Your task to perform on an android device: open app "Google Duo" Image 0: 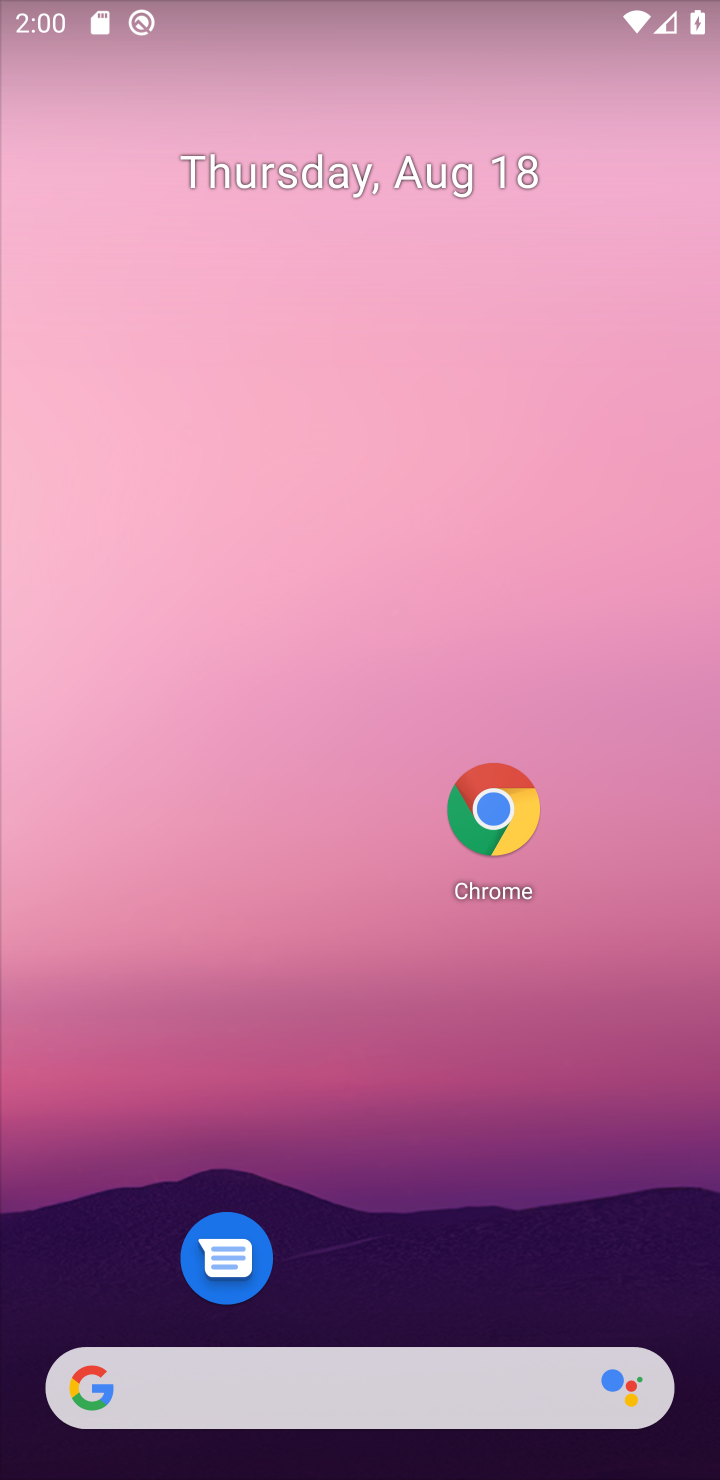
Step 0: drag from (338, 445) to (367, 291)
Your task to perform on an android device: open app "Google Duo" Image 1: 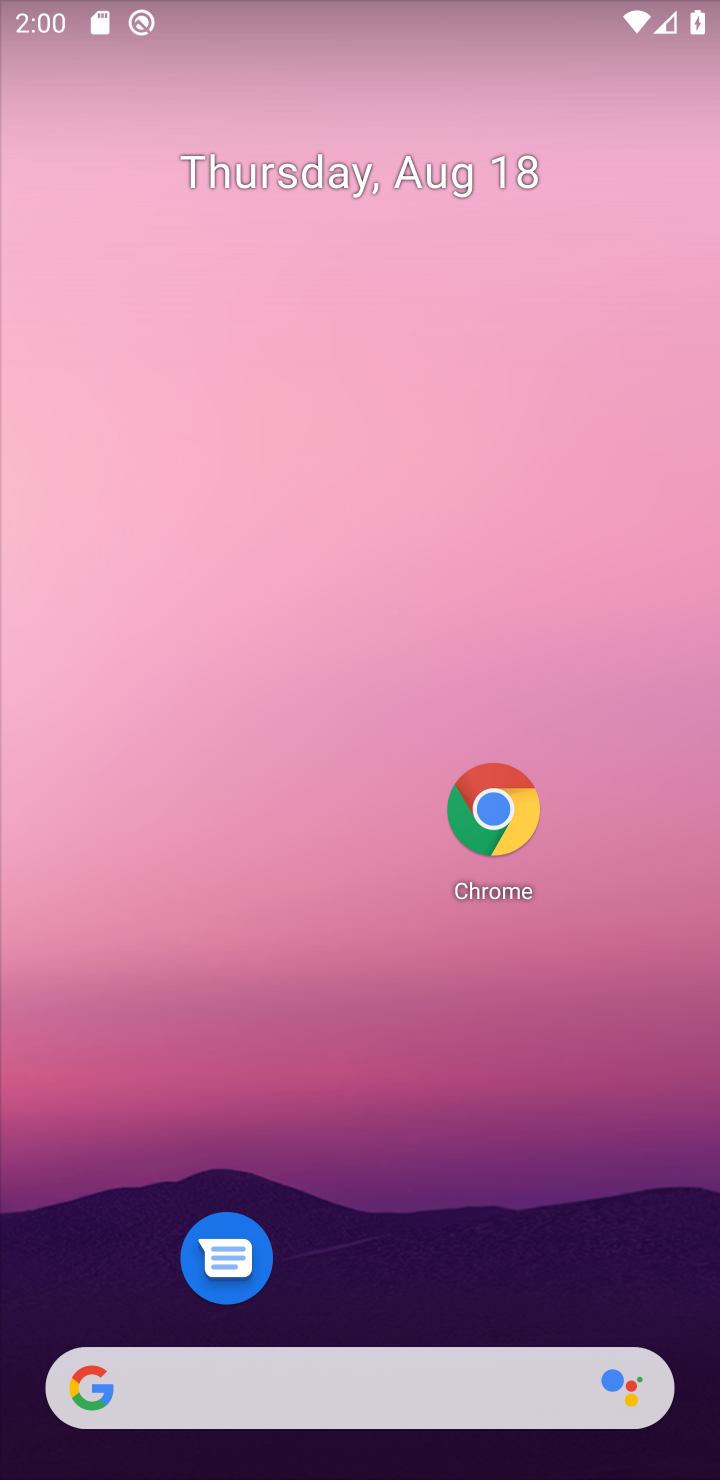
Step 1: drag from (349, 483) to (349, 140)
Your task to perform on an android device: open app "Google Duo" Image 2: 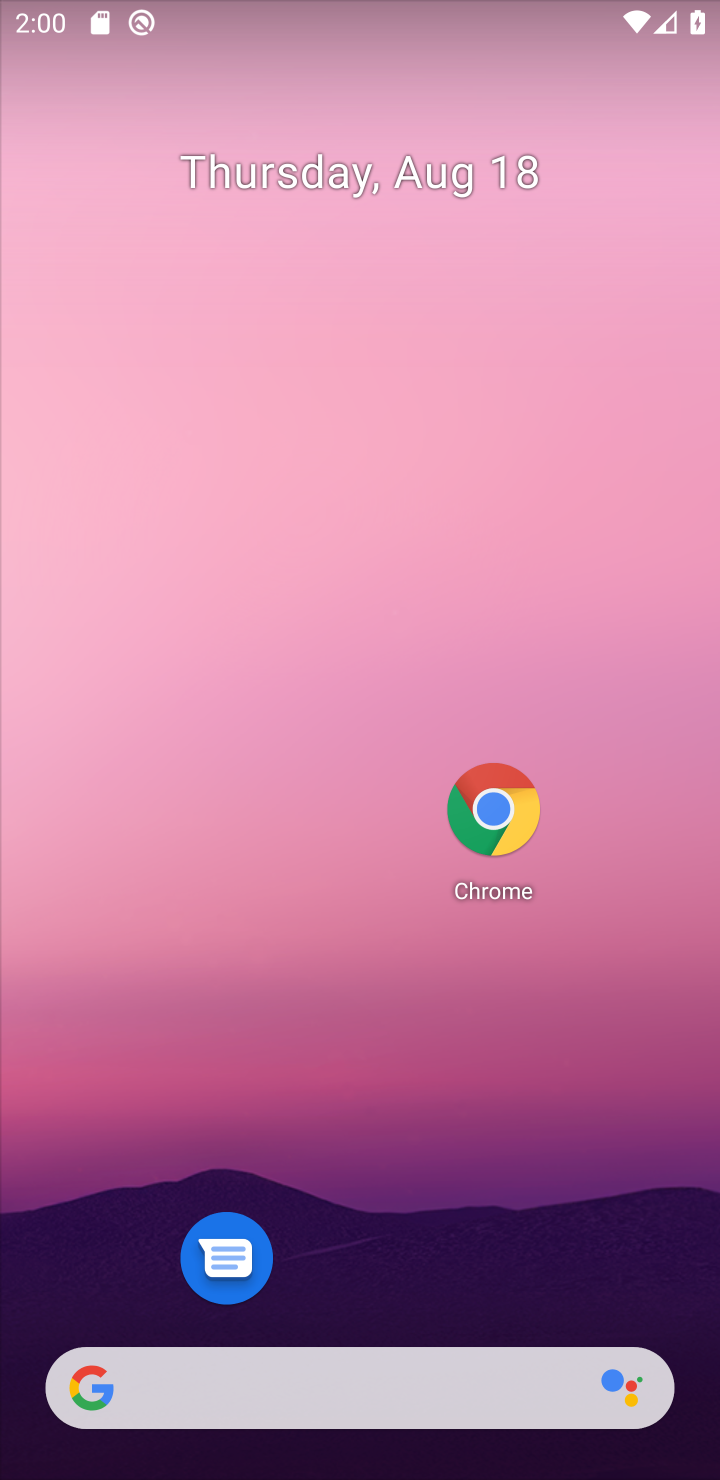
Step 2: drag from (396, 911) to (399, 157)
Your task to perform on an android device: open app "Google Duo" Image 3: 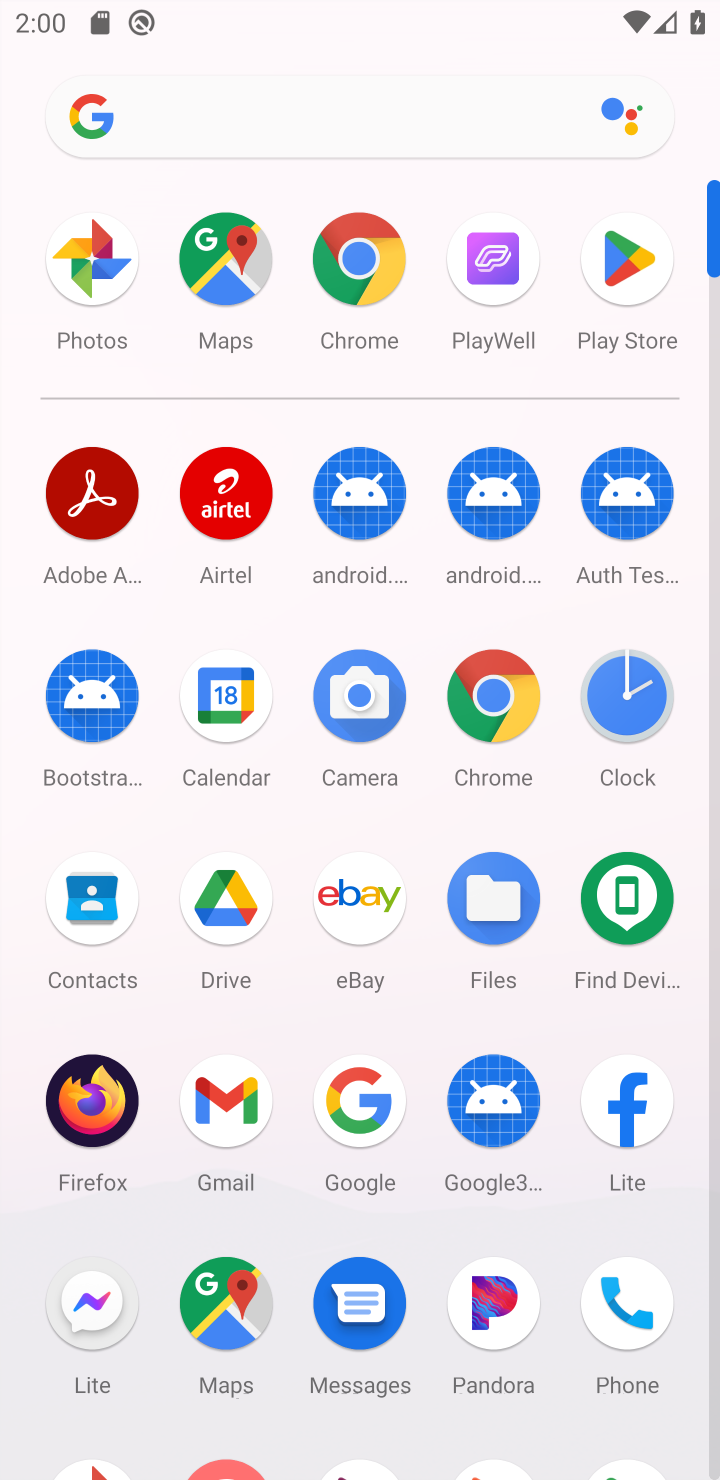
Step 3: click (631, 278)
Your task to perform on an android device: open app "Google Duo" Image 4: 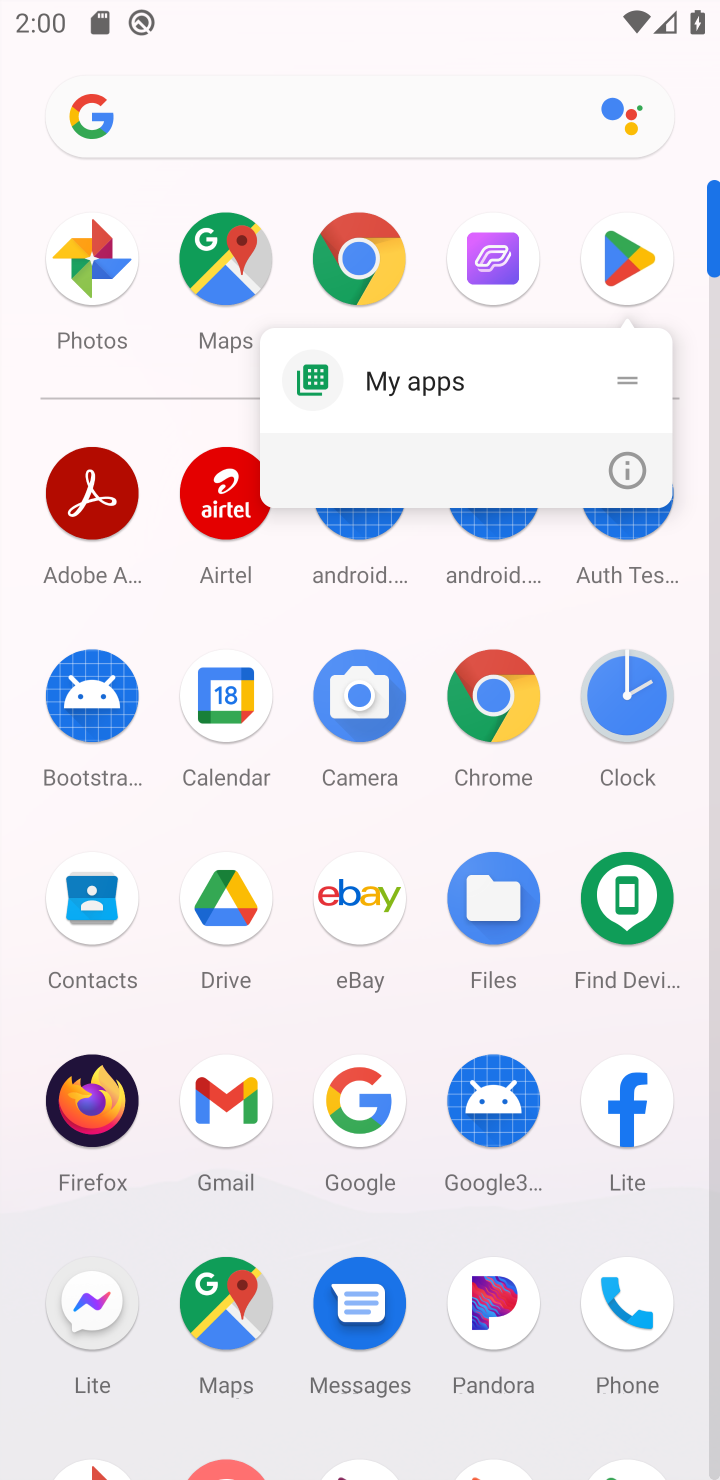
Step 4: click (612, 230)
Your task to perform on an android device: open app "Google Duo" Image 5: 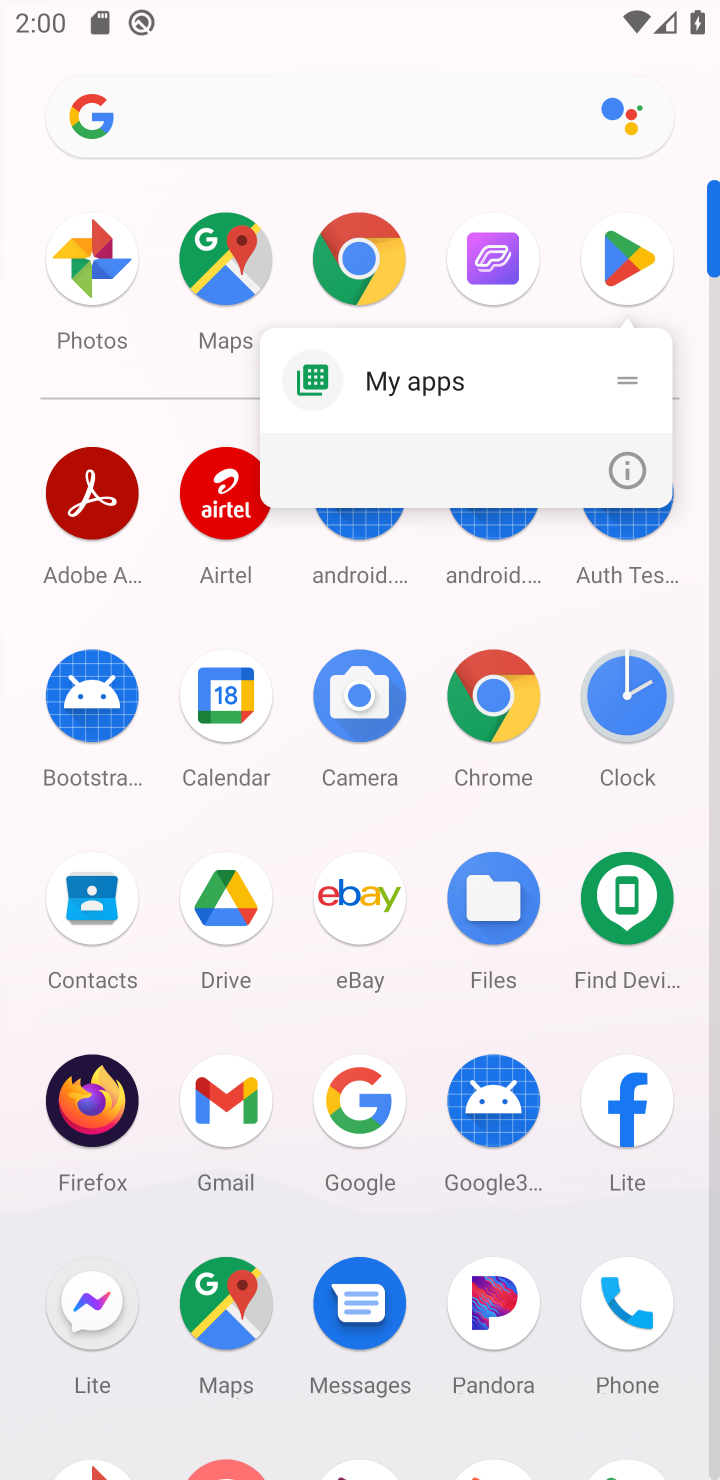
Step 5: click (612, 230)
Your task to perform on an android device: open app "Google Duo" Image 6: 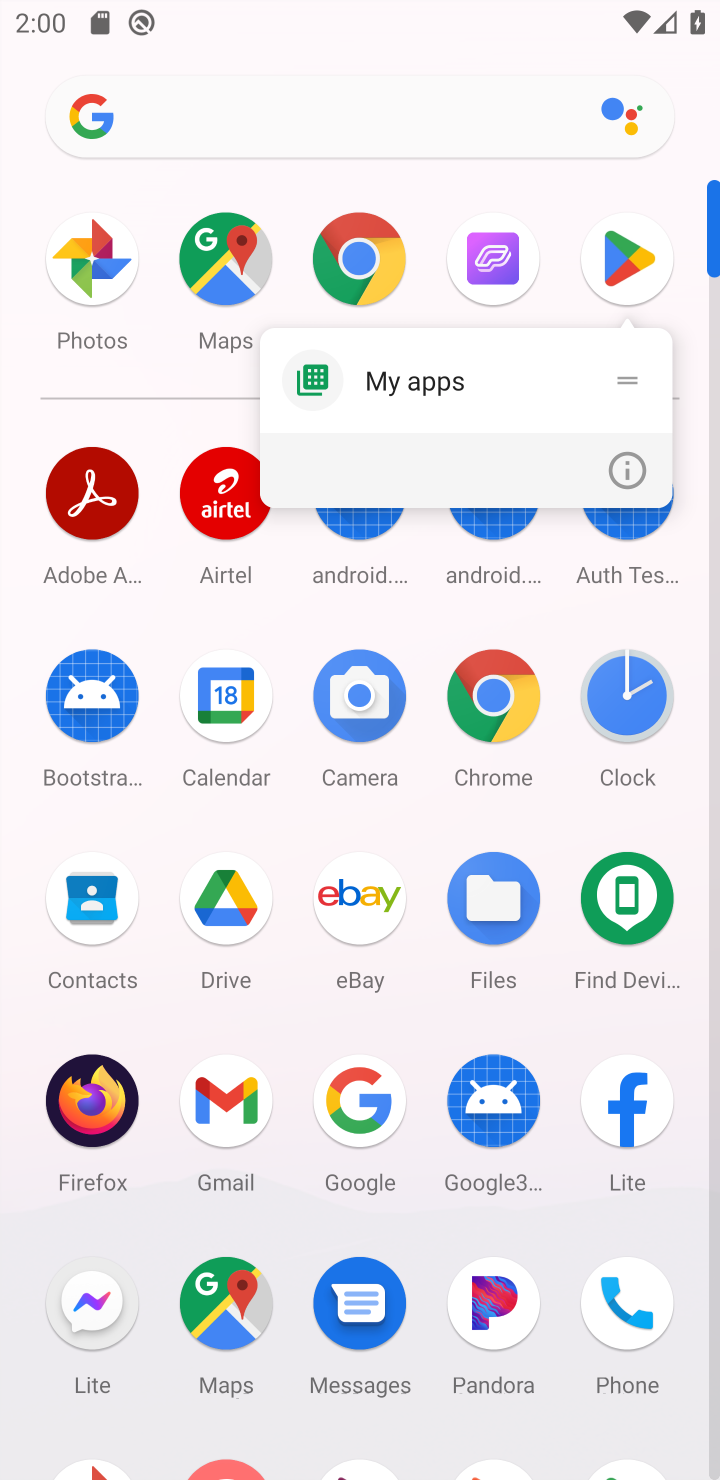
Step 6: click (659, 249)
Your task to perform on an android device: open app "Google Duo" Image 7: 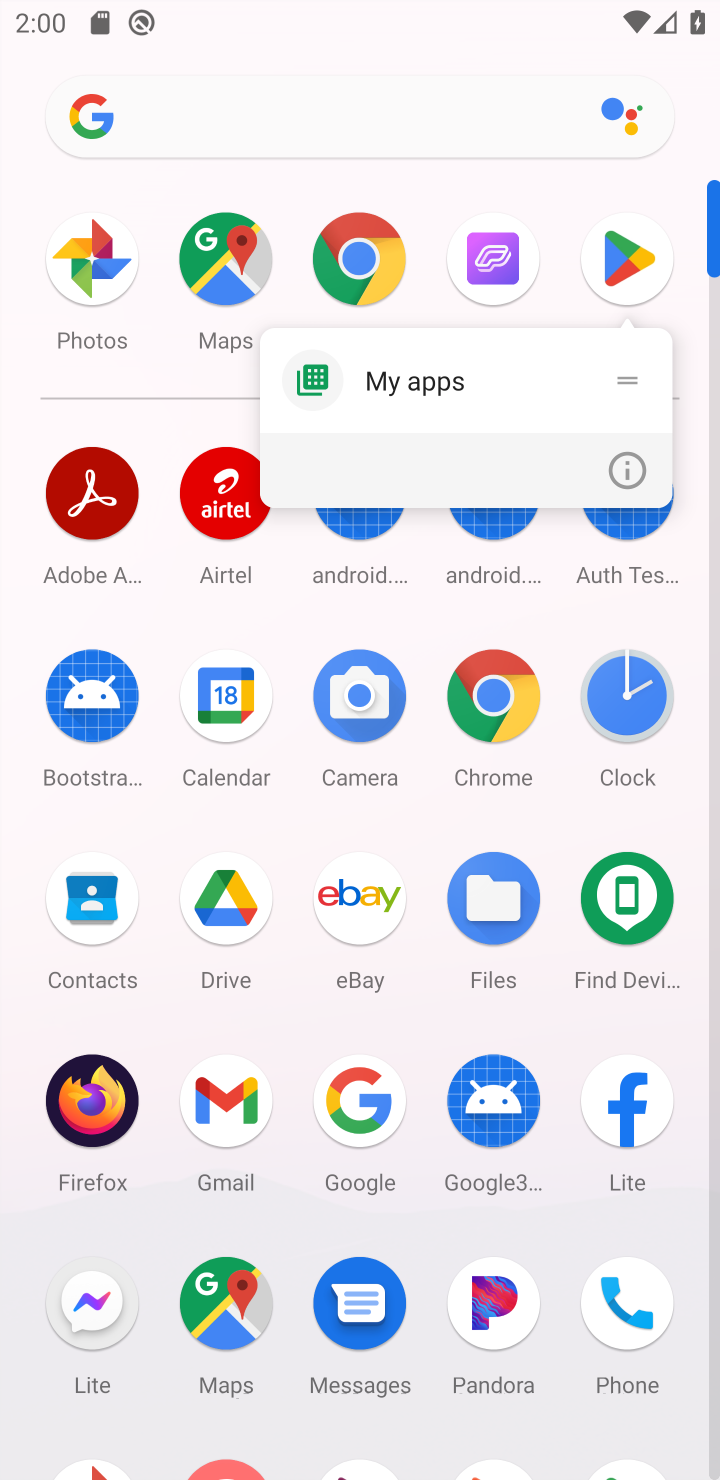
Step 7: click (659, 249)
Your task to perform on an android device: open app "Google Duo" Image 8: 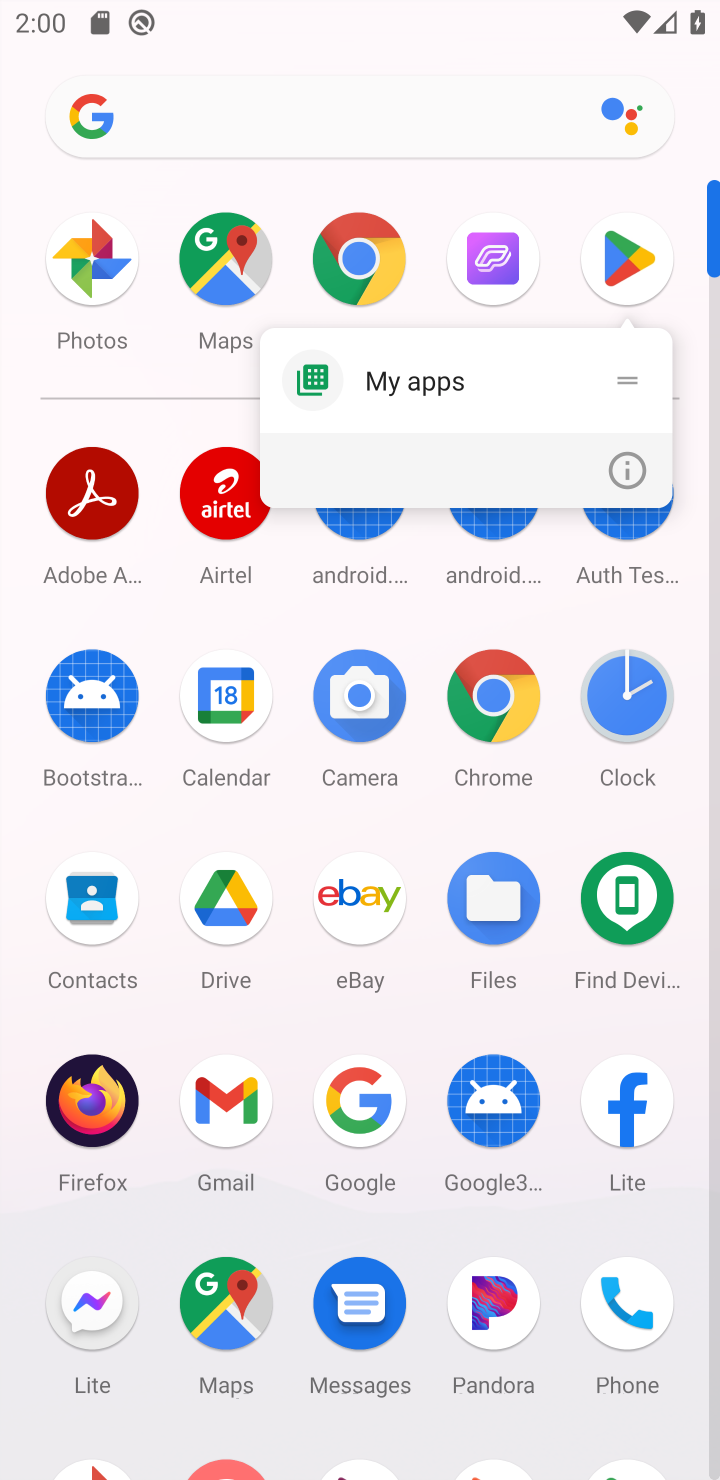
Step 8: drag from (605, 237) to (572, 976)
Your task to perform on an android device: open app "Google Duo" Image 9: 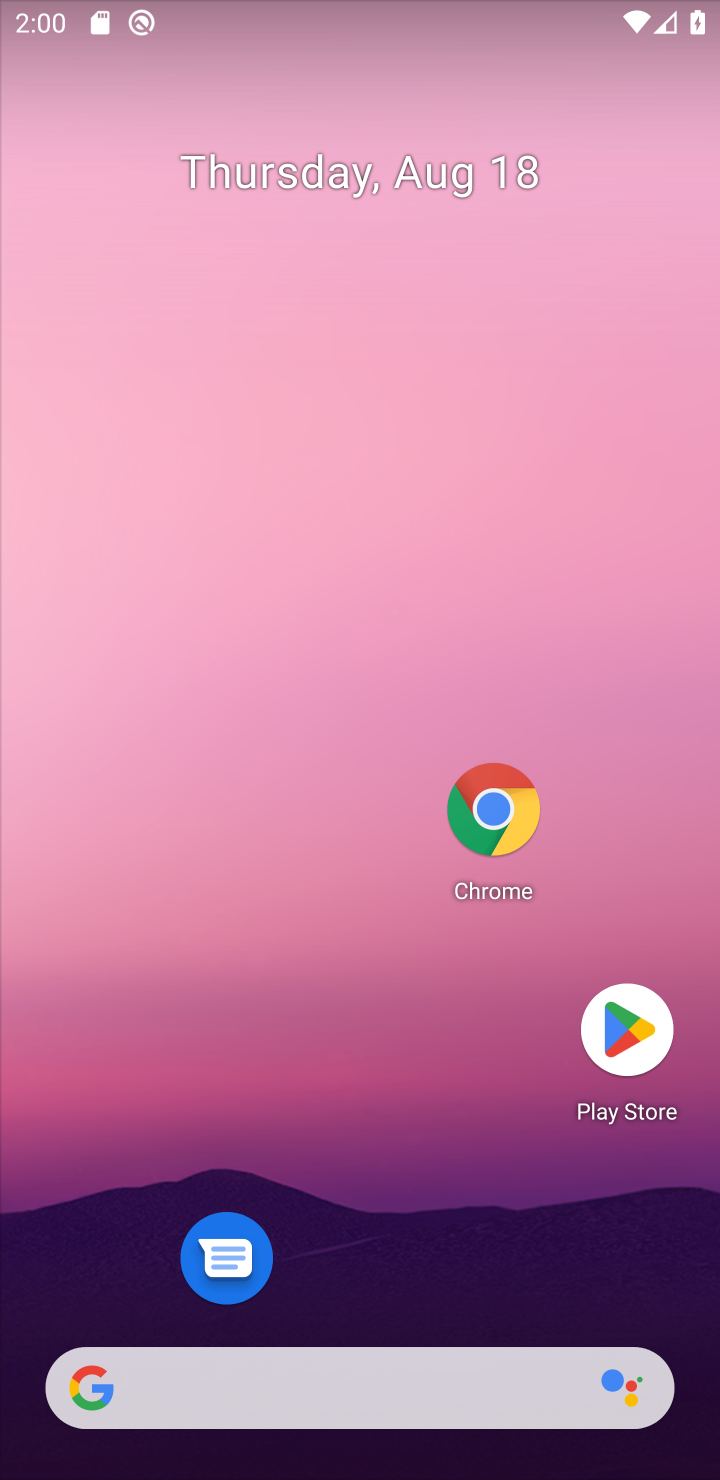
Step 9: click (586, 1032)
Your task to perform on an android device: open app "Google Duo" Image 10: 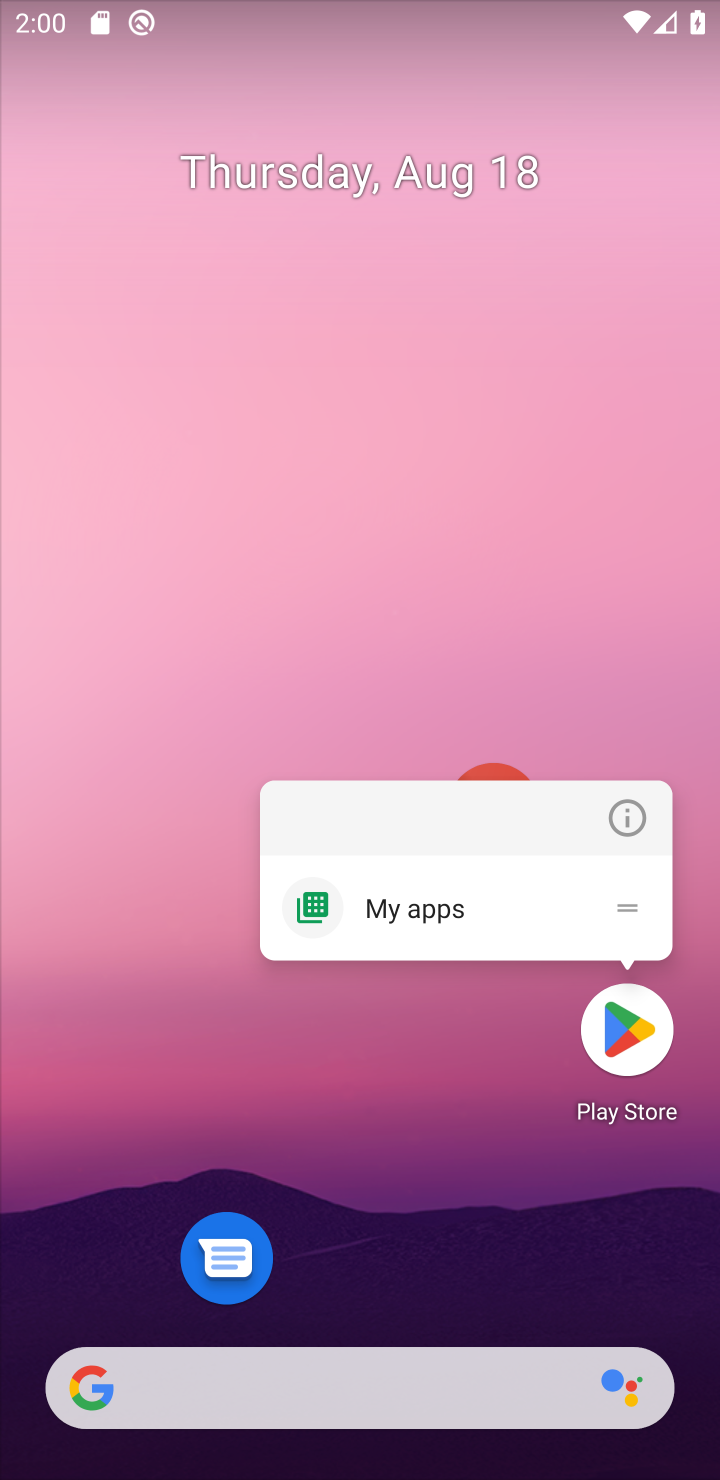
Step 10: click (629, 1020)
Your task to perform on an android device: open app "Google Duo" Image 11: 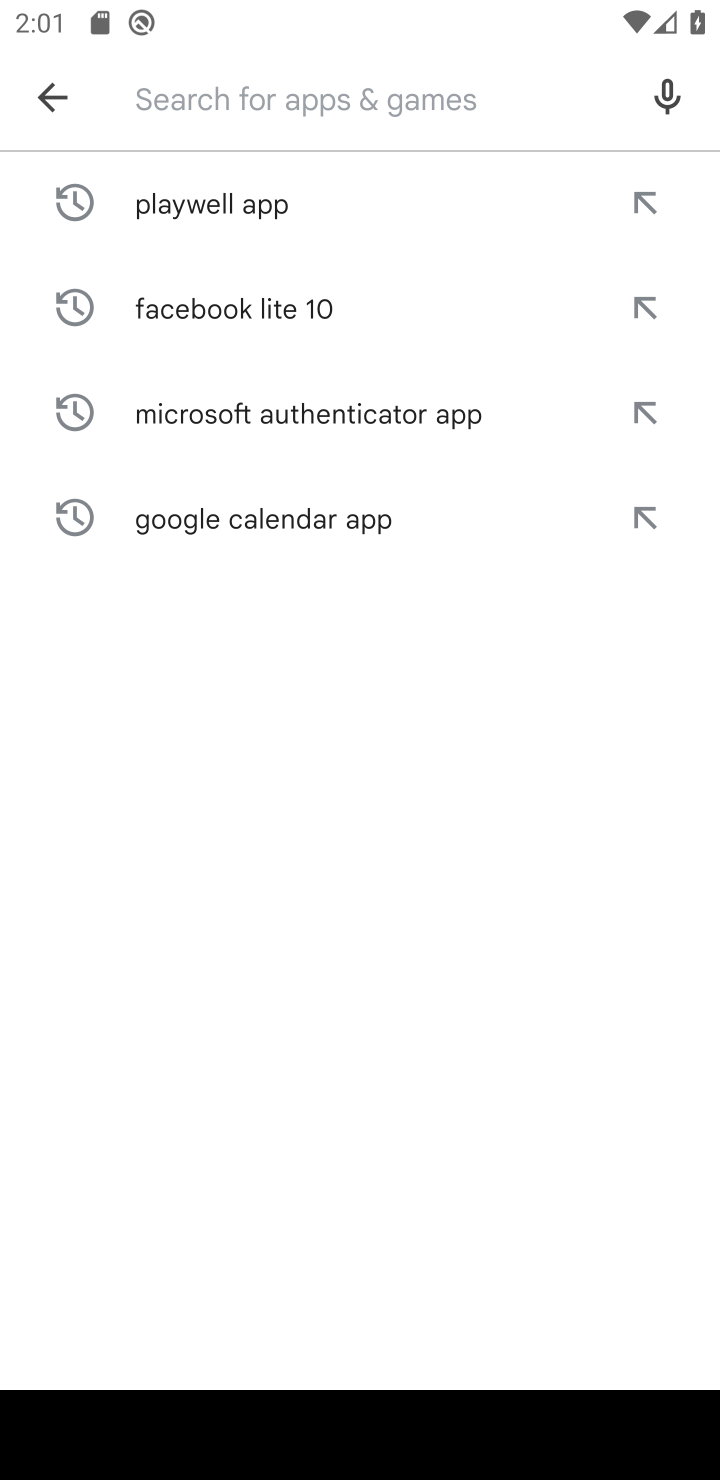
Step 11: click (382, 78)
Your task to perform on an android device: open app "Google Duo" Image 12: 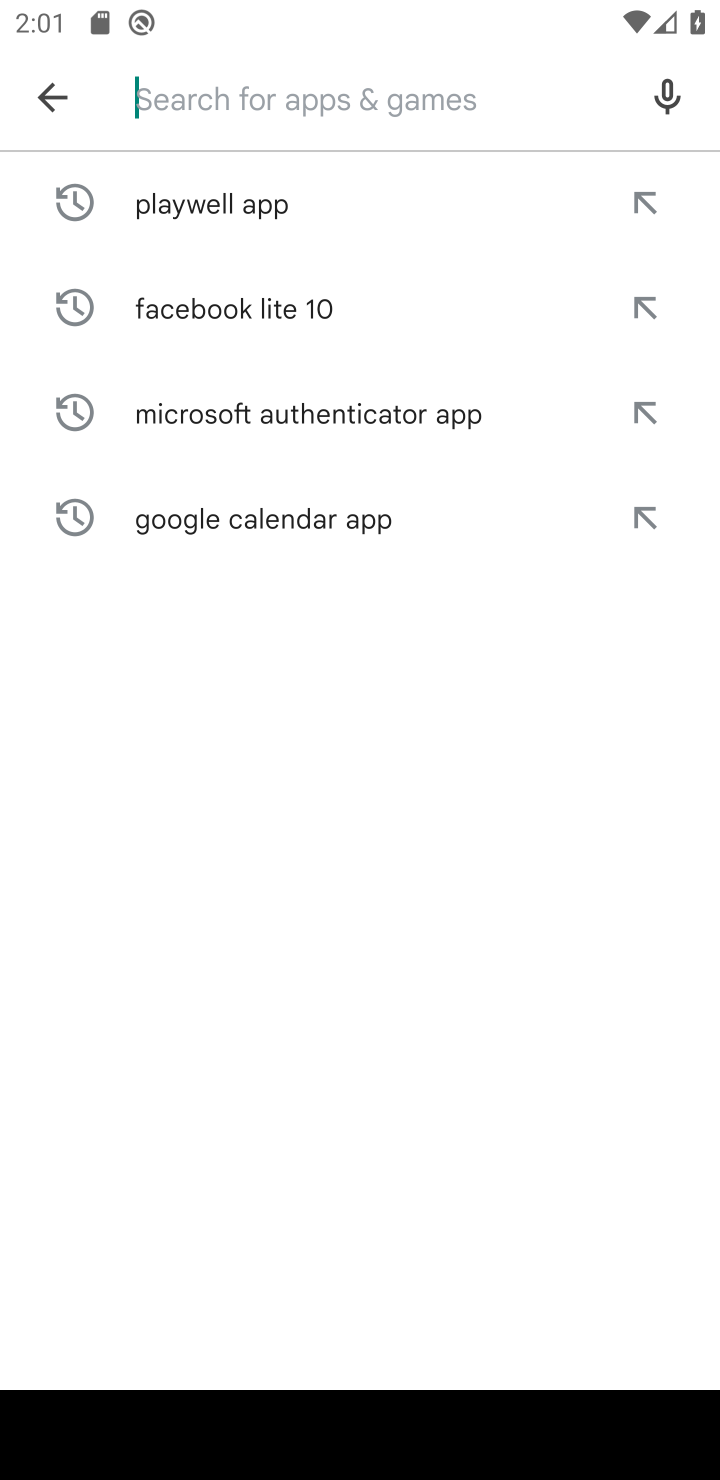
Step 12: type "Google Duo "
Your task to perform on an android device: open app "Google Duo" Image 13: 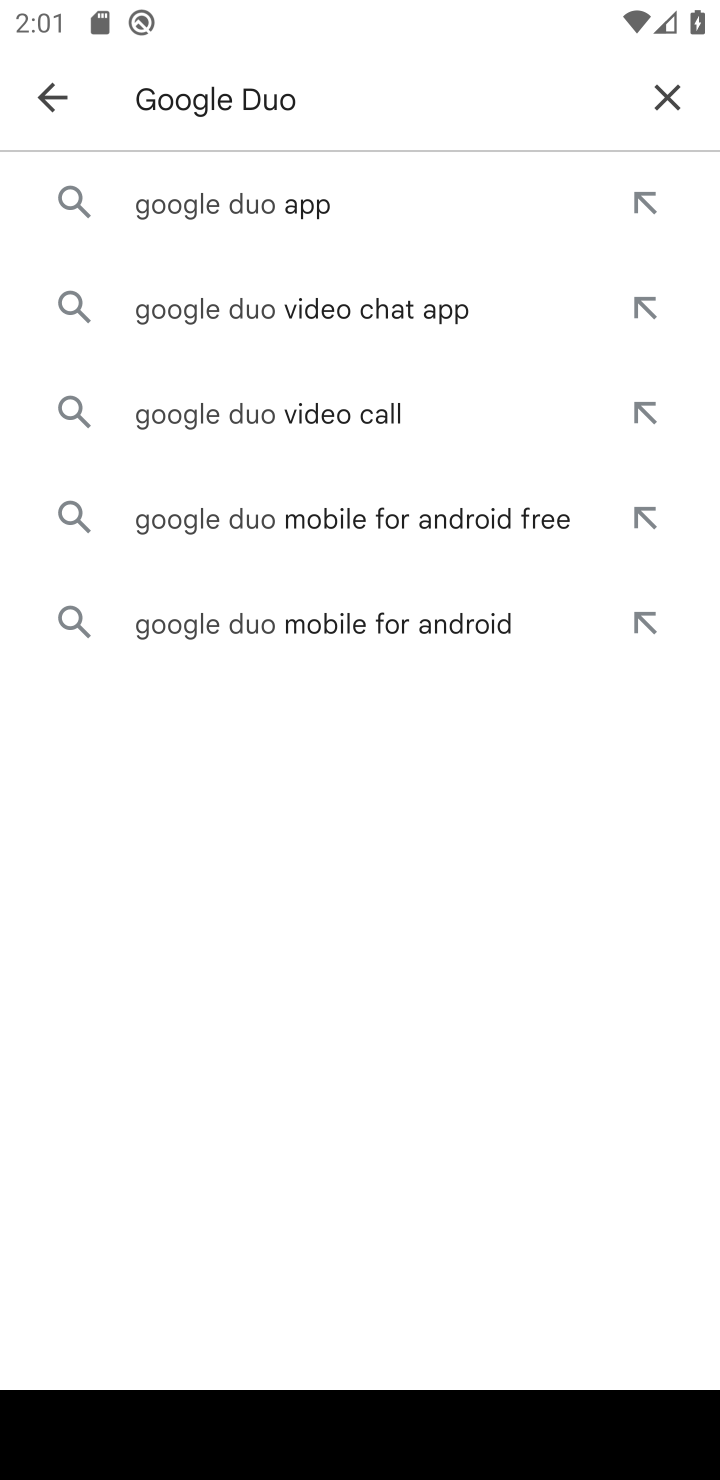
Step 13: click (260, 212)
Your task to perform on an android device: open app "Google Duo" Image 14: 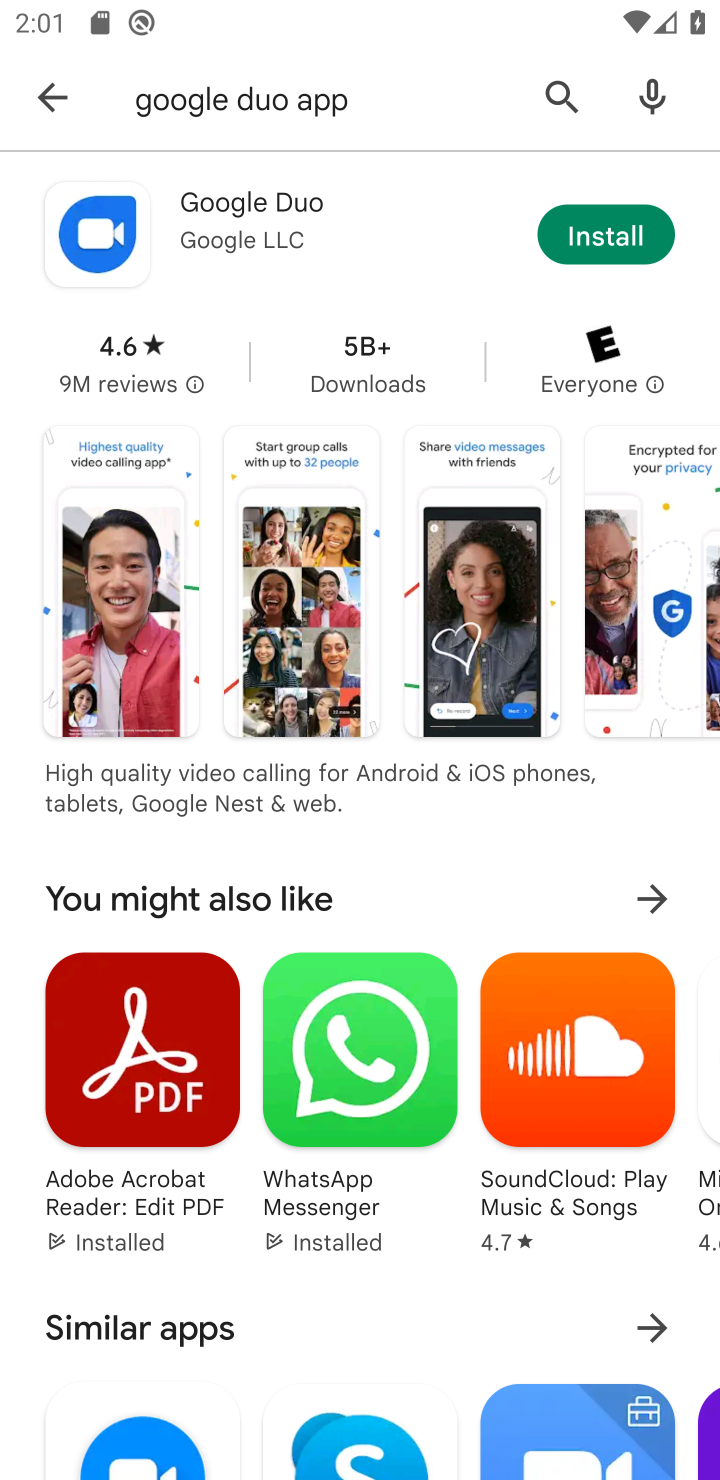
Step 14: click (654, 245)
Your task to perform on an android device: open app "Google Duo" Image 15: 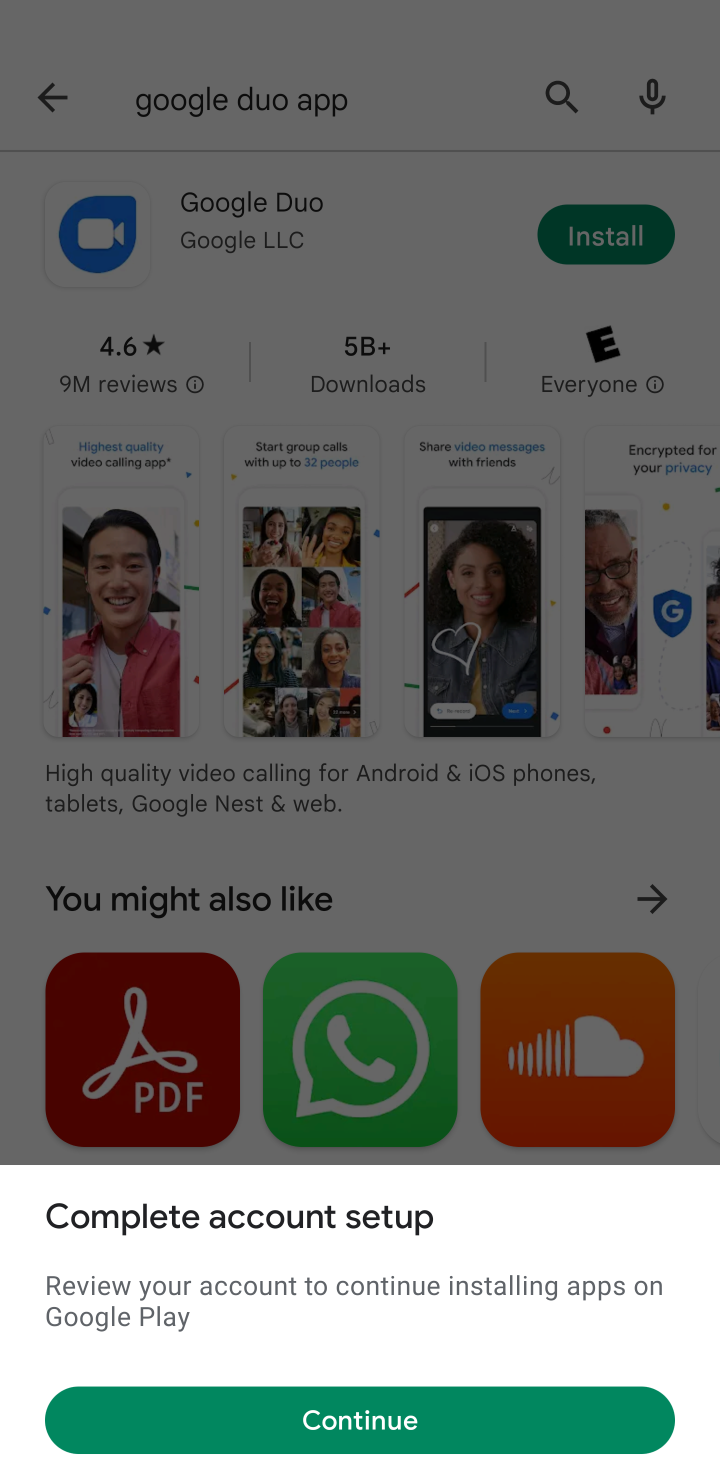
Step 15: task complete